Your task to perform on an android device: open device folders in google photos Image 0: 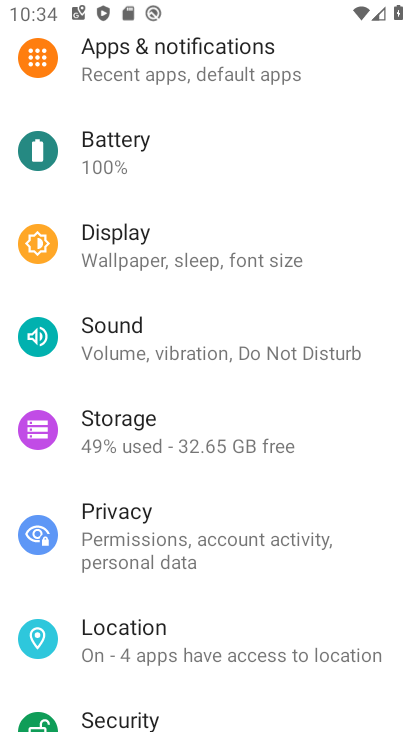
Step 0: press home button
Your task to perform on an android device: open device folders in google photos Image 1: 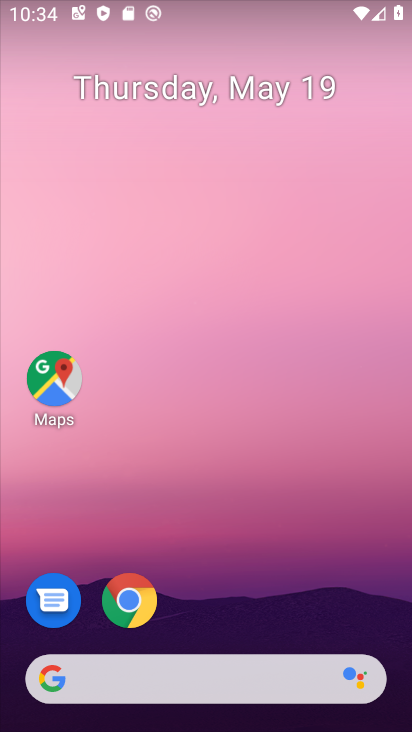
Step 1: drag from (289, 613) to (277, 63)
Your task to perform on an android device: open device folders in google photos Image 2: 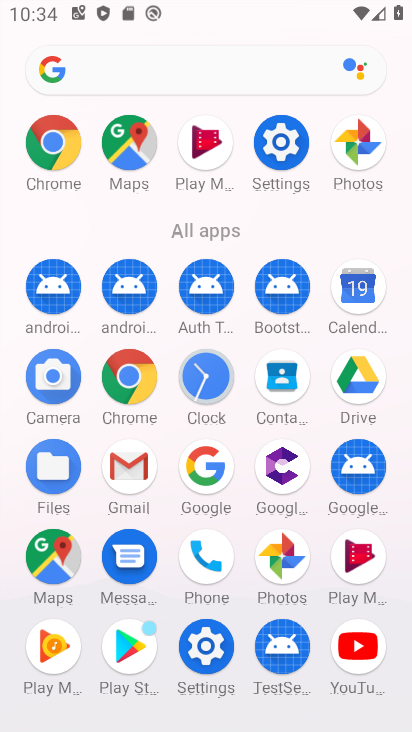
Step 2: click (294, 560)
Your task to perform on an android device: open device folders in google photos Image 3: 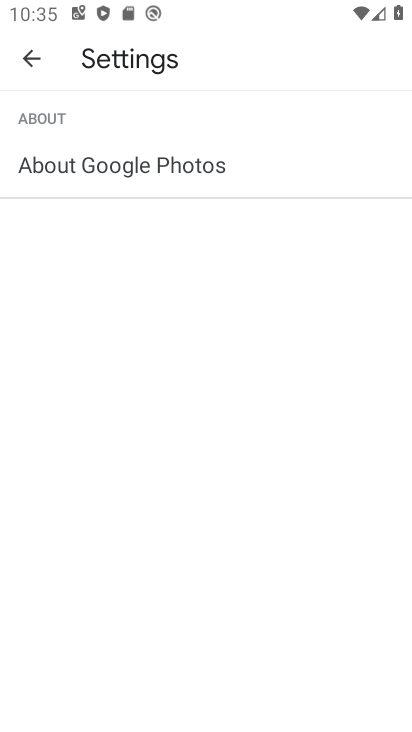
Step 3: click (40, 67)
Your task to perform on an android device: open device folders in google photos Image 4: 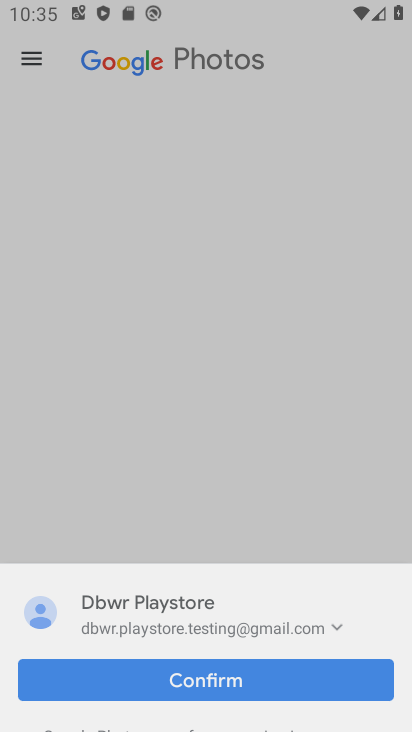
Step 4: click (30, 62)
Your task to perform on an android device: open device folders in google photos Image 5: 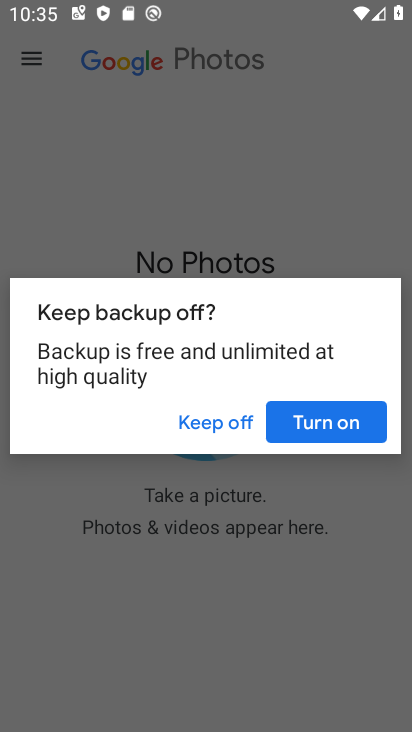
Step 5: click (376, 414)
Your task to perform on an android device: open device folders in google photos Image 6: 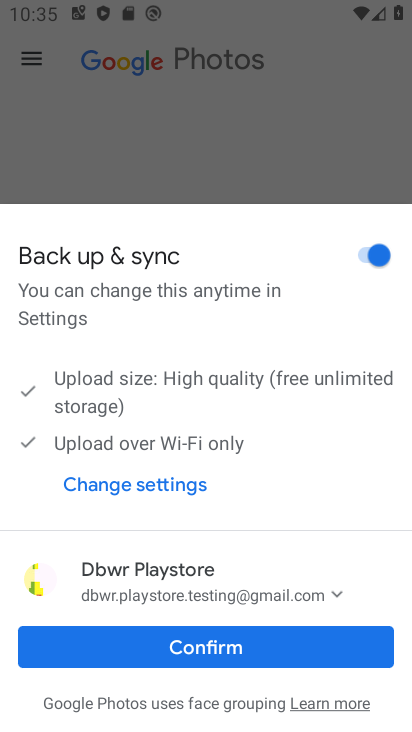
Step 6: click (150, 646)
Your task to perform on an android device: open device folders in google photos Image 7: 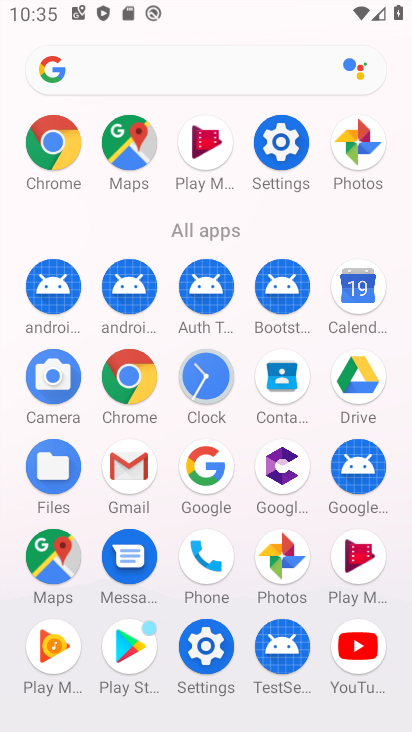
Step 7: click (269, 565)
Your task to perform on an android device: open device folders in google photos Image 8: 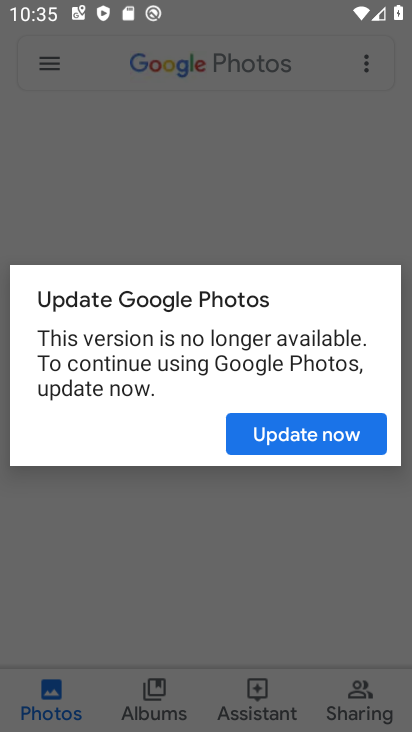
Step 8: click (266, 437)
Your task to perform on an android device: open device folders in google photos Image 9: 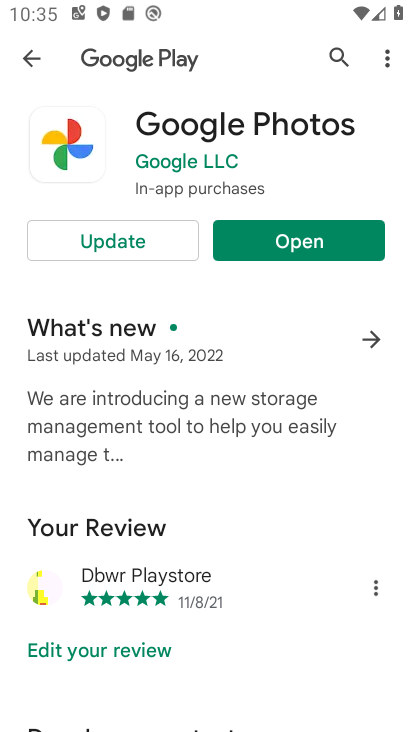
Step 9: click (106, 251)
Your task to perform on an android device: open device folders in google photos Image 10: 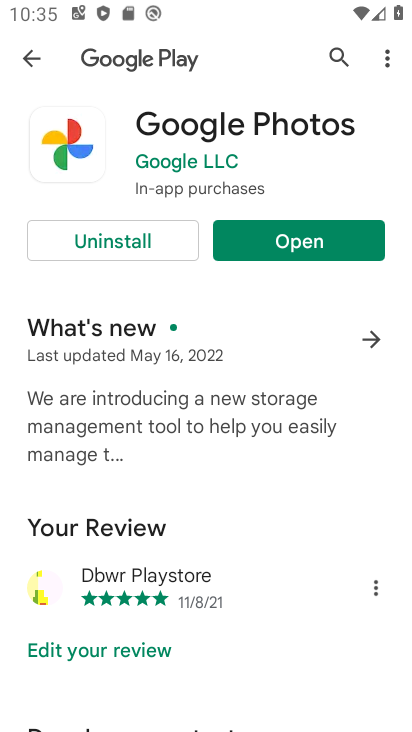
Step 10: click (342, 237)
Your task to perform on an android device: open device folders in google photos Image 11: 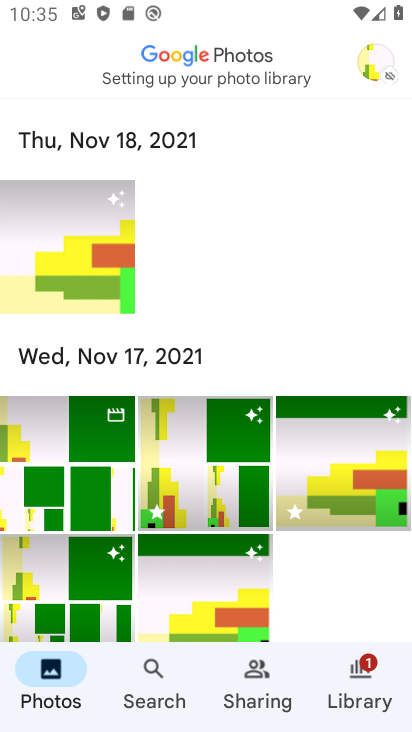
Step 11: click (394, 67)
Your task to perform on an android device: open device folders in google photos Image 12: 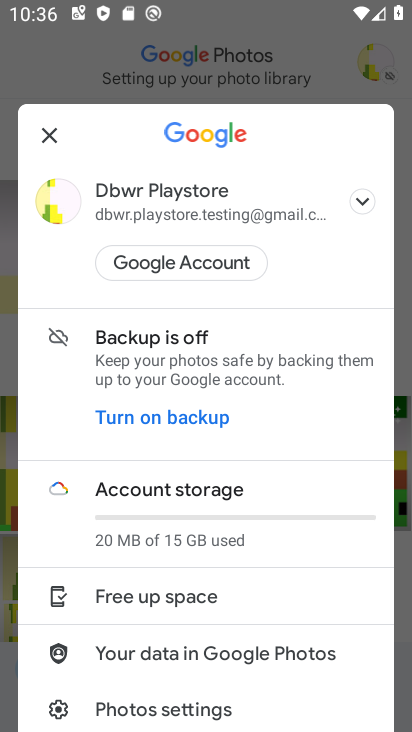
Step 12: task complete